Your task to perform on an android device: toggle airplane mode Image 0: 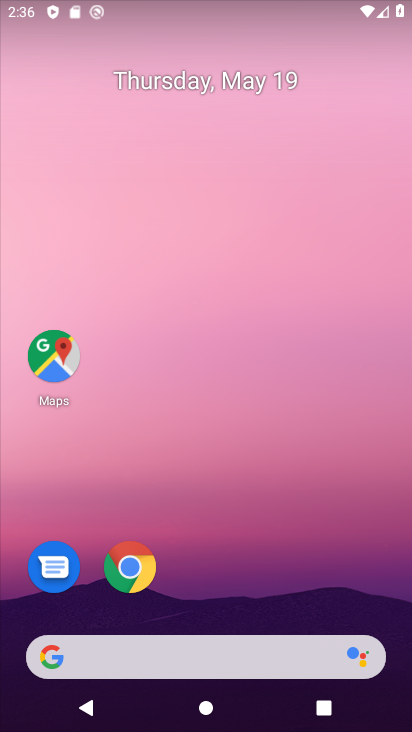
Step 0: drag from (220, 7) to (187, 410)
Your task to perform on an android device: toggle airplane mode Image 1: 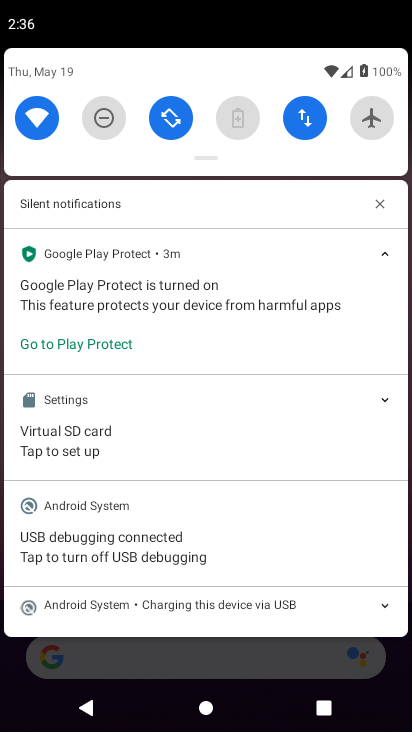
Step 1: click (371, 108)
Your task to perform on an android device: toggle airplane mode Image 2: 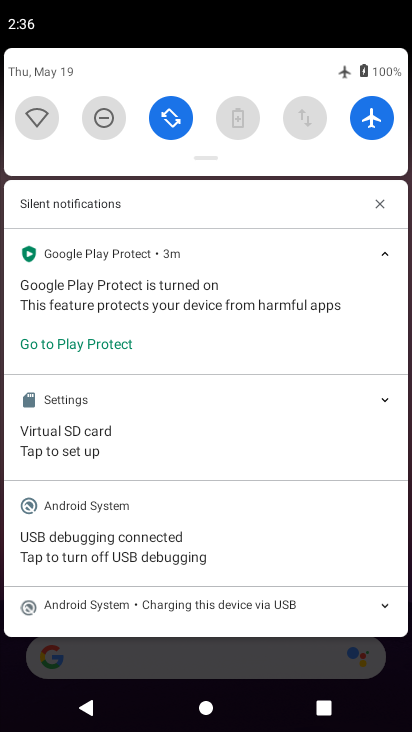
Step 2: task complete